Your task to perform on an android device: Turn on the flashlight Image 0: 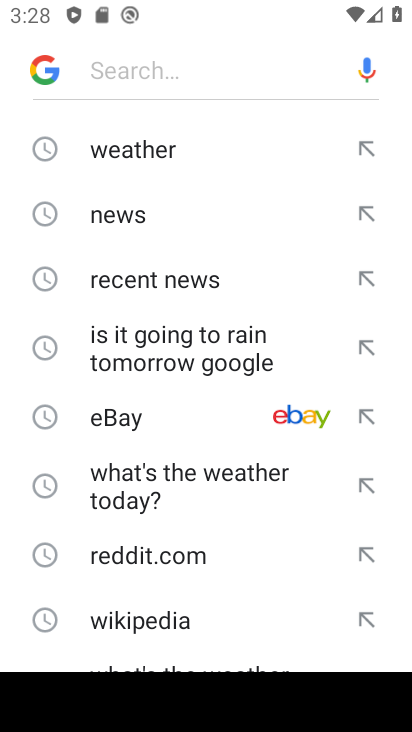
Step 0: press back button
Your task to perform on an android device: Turn on the flashlight Image 1: 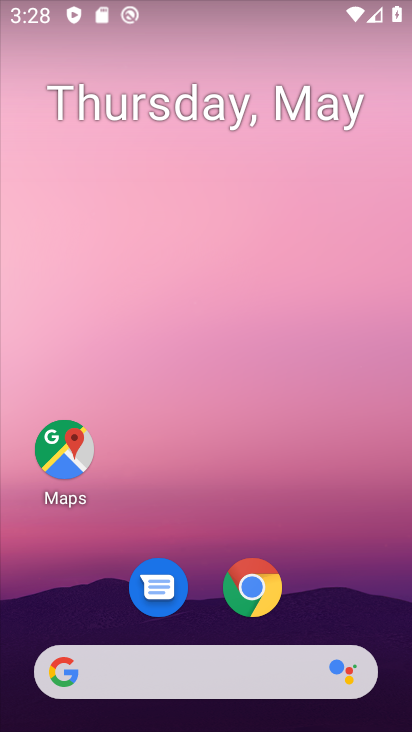
Step 1: drag from (337, 517) to (265, 42)
Your task to perform on an android device: Turn on the flashlight Image 2: 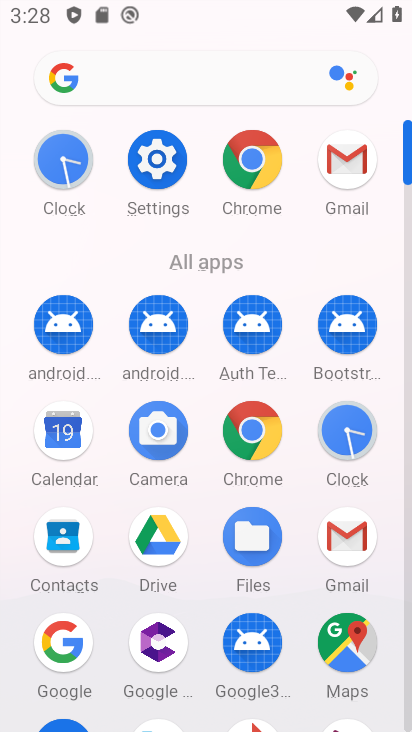
Step 2: drag from (4, 553) to (19, 244)
Your task to perform on an android device: Turn on the flashlight Image 3: 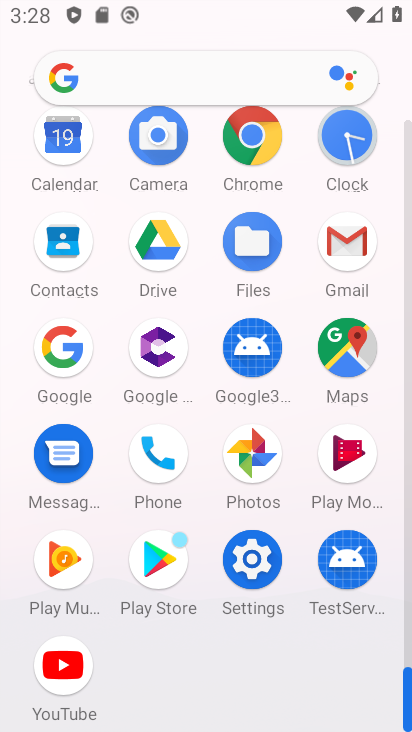
Step 3: click (254, 554)
Your task to perform on an android device: Turn on the flashlight Image 4: 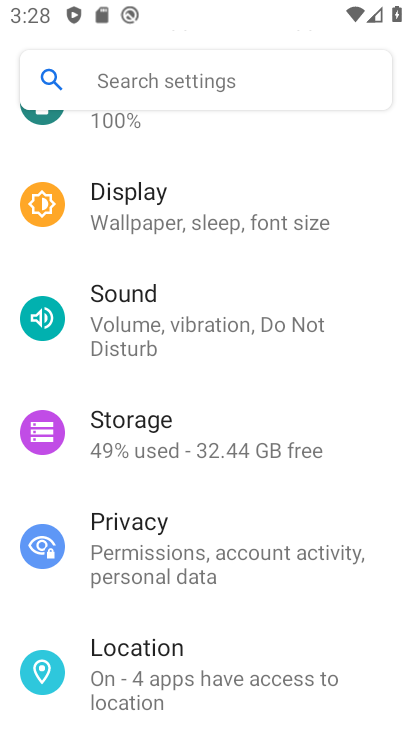
Step 4: drag from (308, 221) to (293, 651)
Your task to perform on an android device: Turn on the flashlight Image 5: 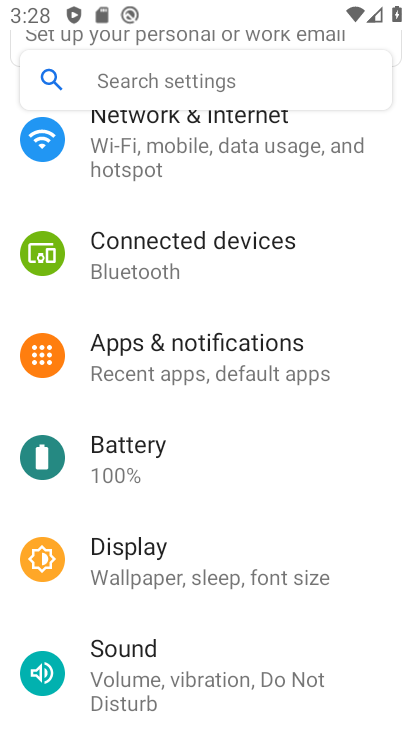
Step 5: drag from (298, 242) to (286, 620)
Your task to perform on an android device: Turn on the flashlight Image 6: 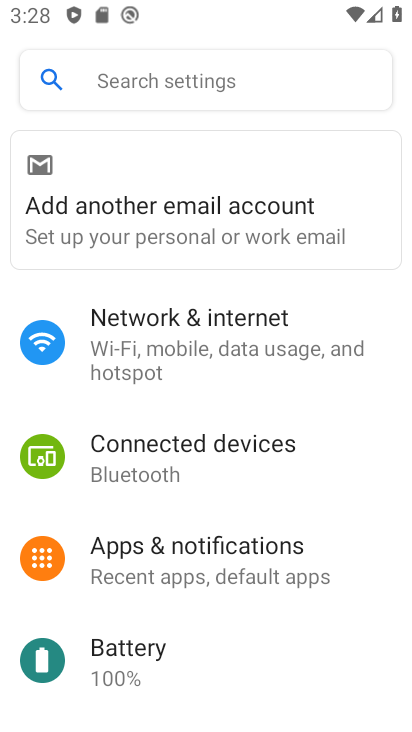
Step 6: click (267, 345)
Your task to perform on an android device: Turn on the flashlight Image 7: 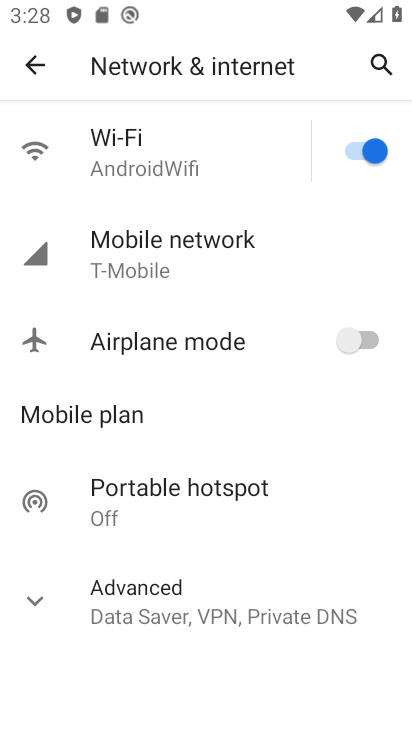
Step 7: click (45, 605)
Your task to perform on an android device: Turn on the flashlight Image 8: 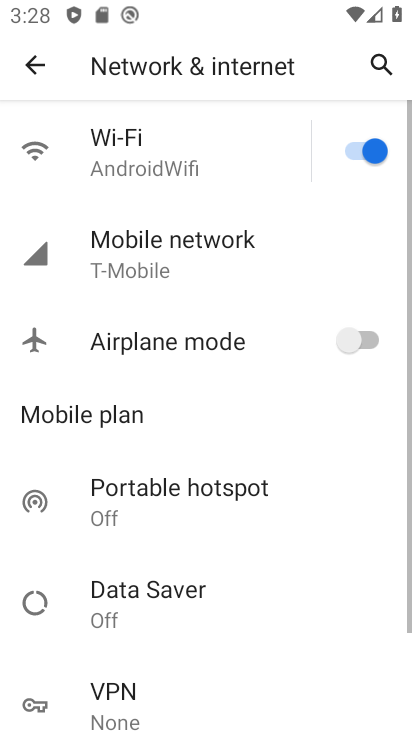
Step 8: task complete